Your task to perform on an android device: What is the recent news? Image 0: 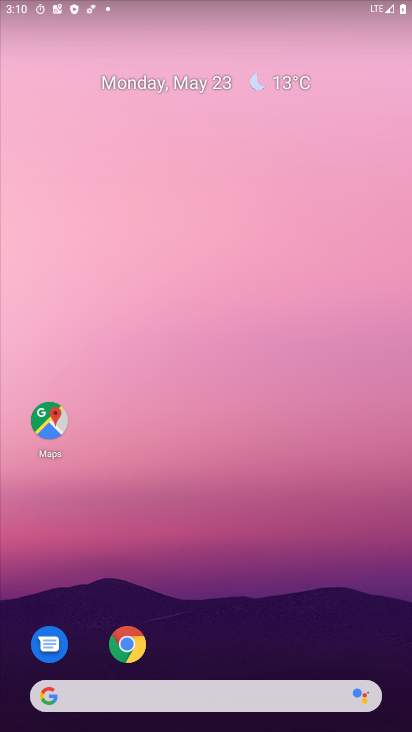
Step 0: drag from (129, 10) to (252, 13)
Your task to perform on an android device: What is the recent news? Image 1: 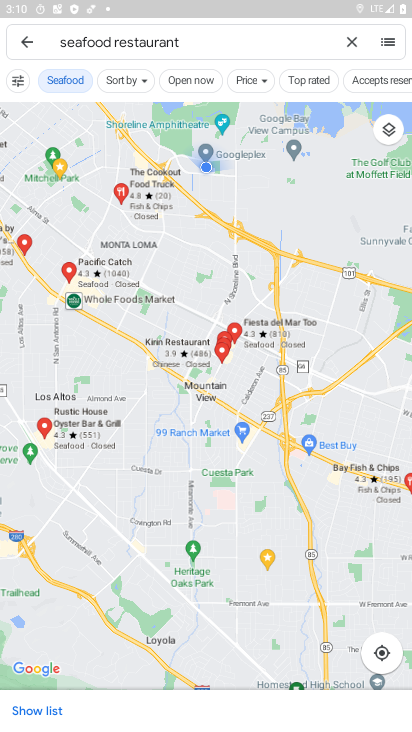
Step 1: press home button
Your task to perform on an android device: What is the recent news? Image 2: 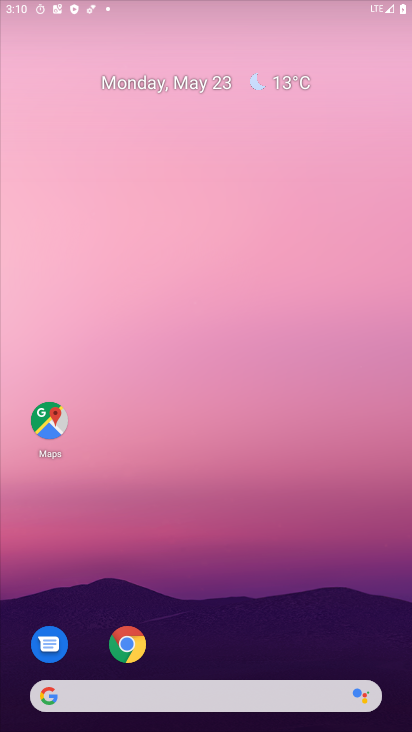
Step 2: click (212, 693)
Your task to perform on an android device: What is the recent news? Image 3: 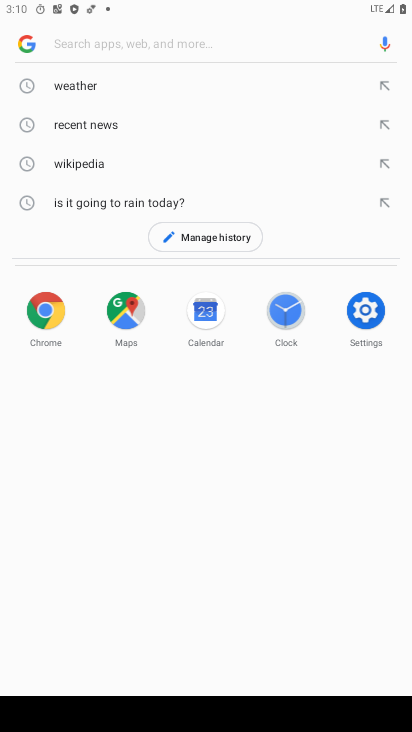
Step 3: click (86, 116)
Your task to perform on an android device: What is the recent news? Image 4: 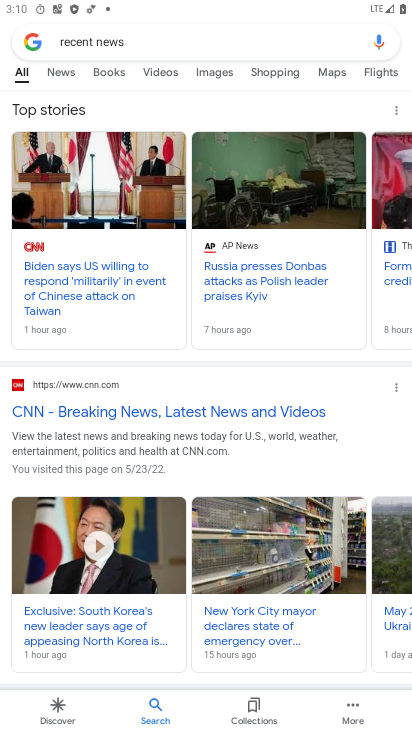
Step 4: task complete